Your task to perform on an android device: Open calendar and show me the second week of next month Image 0: 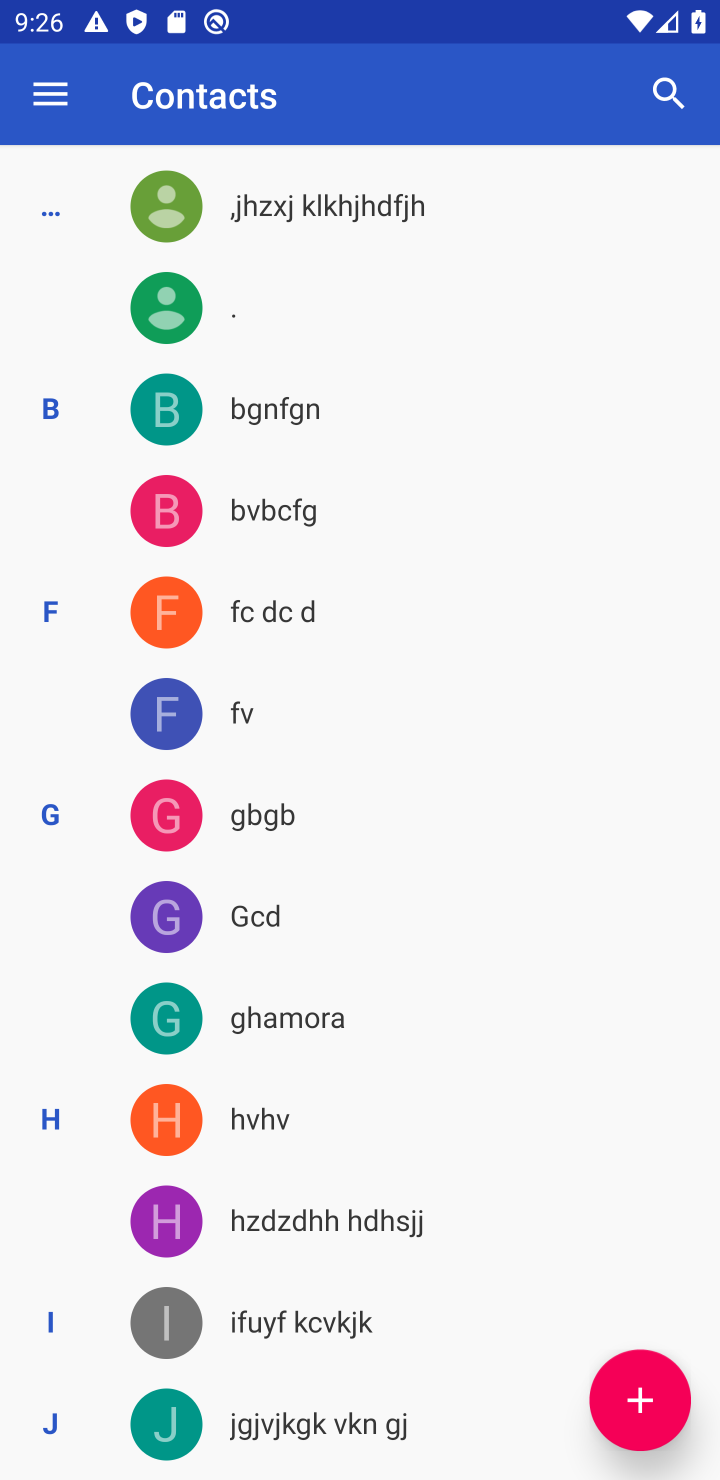
Step 0: press home button
Your task to perform on an android device: Open calendar and show me the second week of next month Image 1: 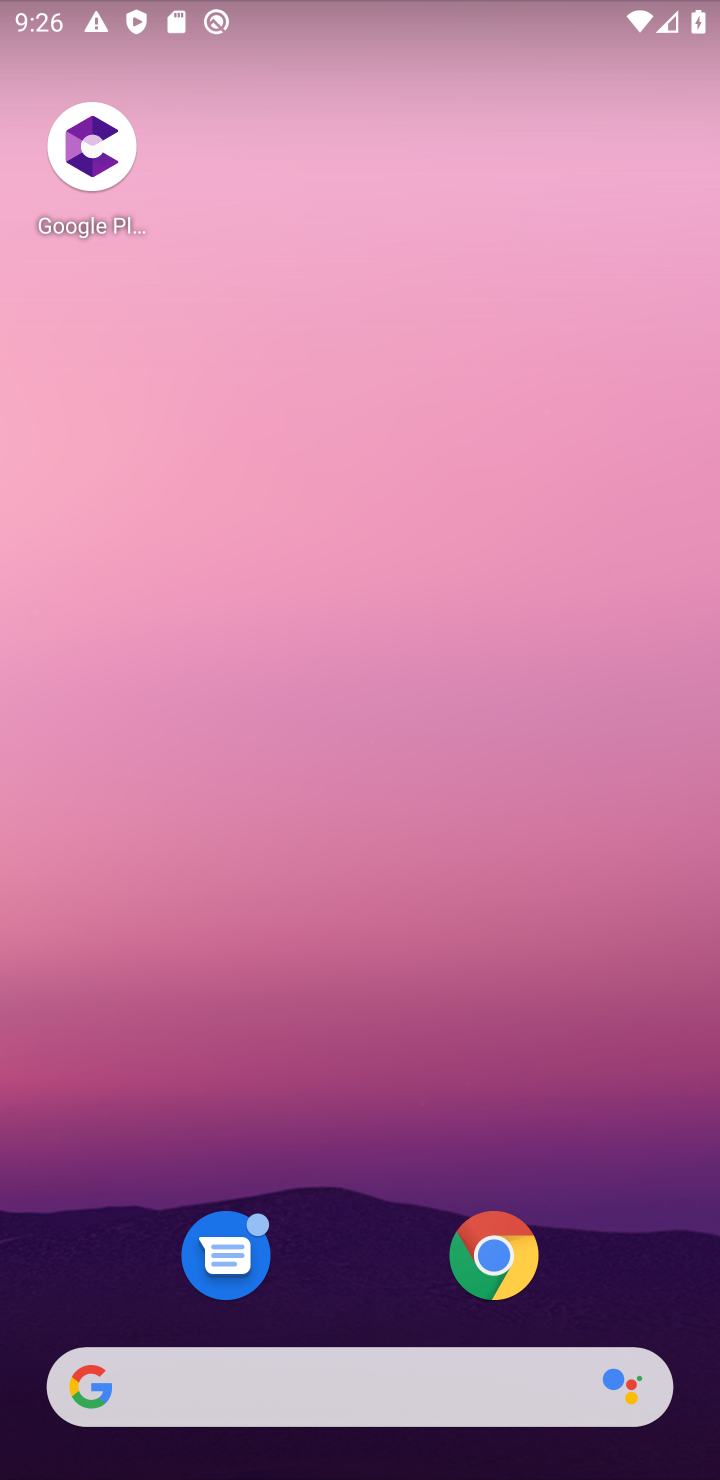
Step 1: drag from (46, 1342) to (263, 561)
Your task to perform on an android device: Open calendar and show me the second week of next month Image 2: 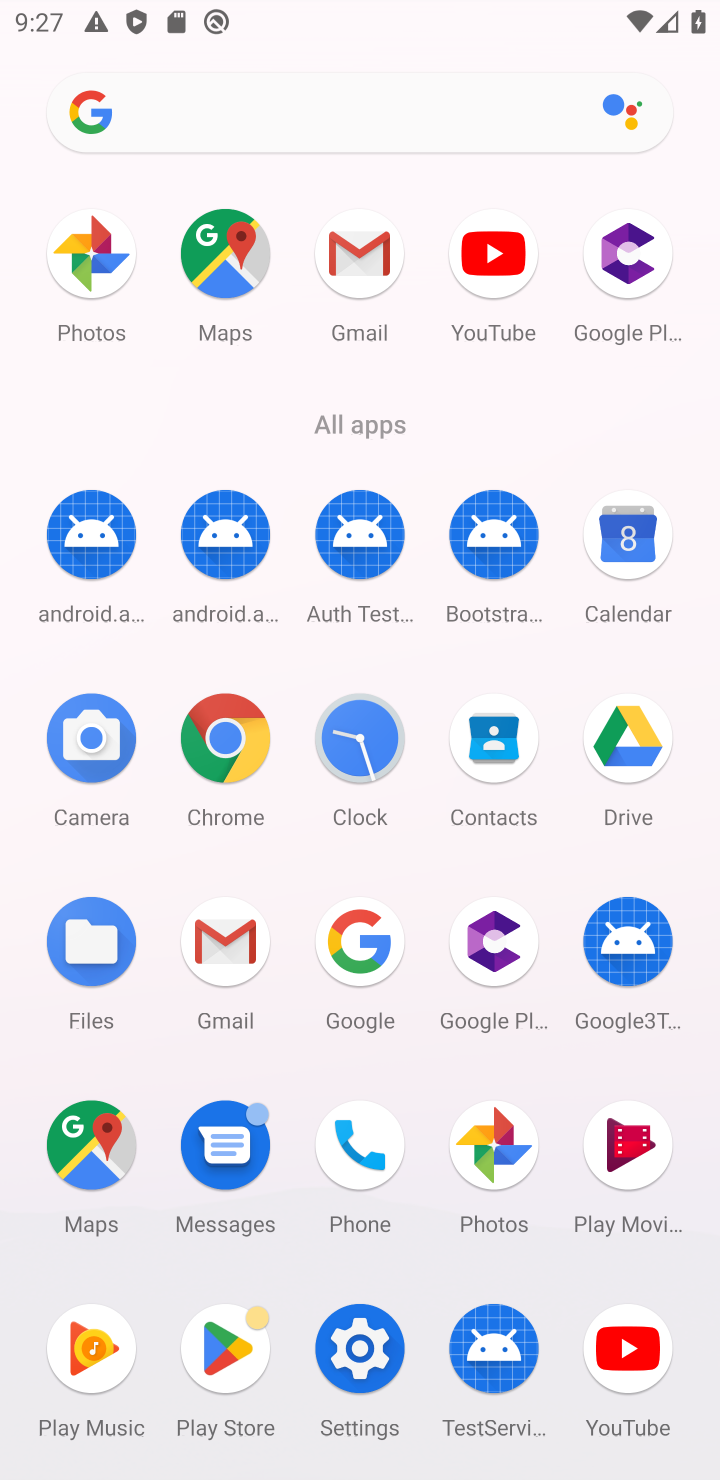
Step 2: click (643, 553)
Your task to perform on an android device: Open calendar and show me the second week of next month Image 3: 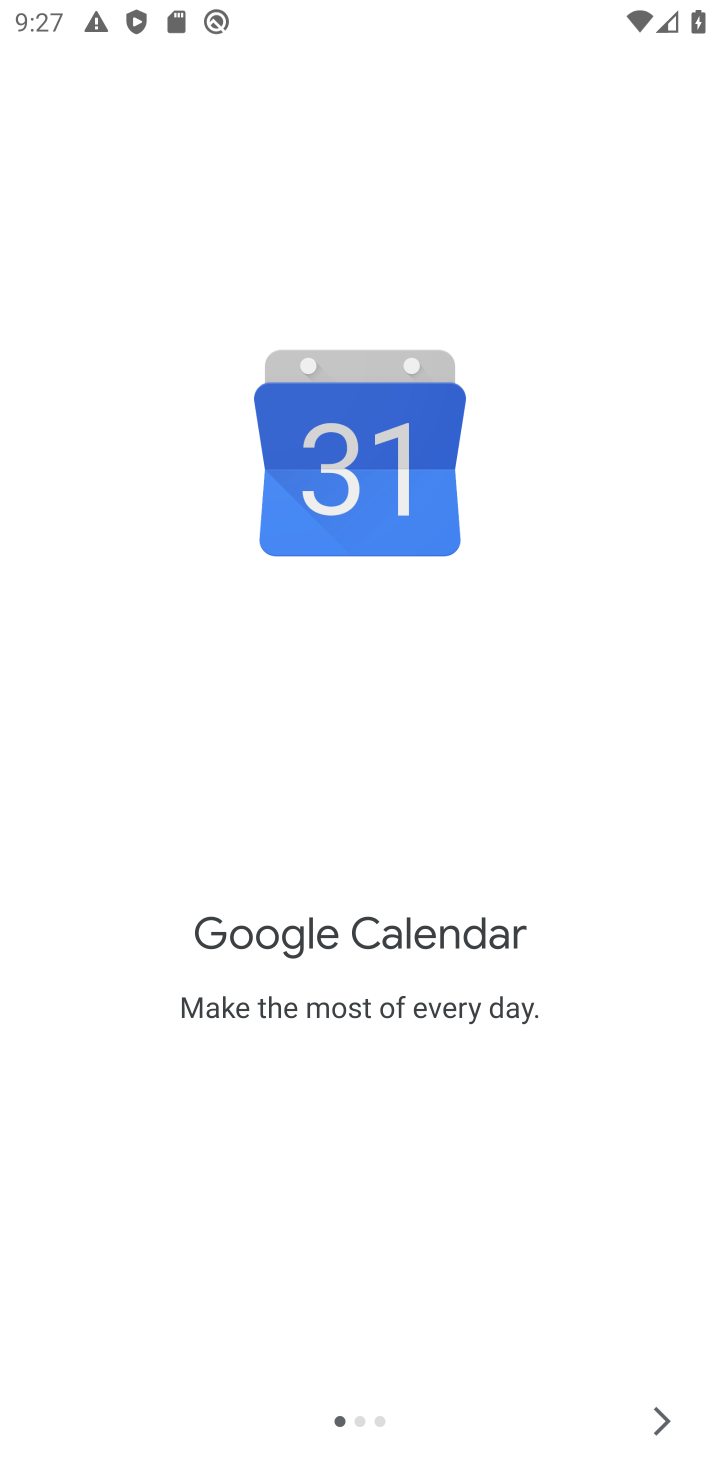
Step 3: click (669, 1402)
Your task to perform on an android device: Open calendar and show me the second week of next month Image 4: 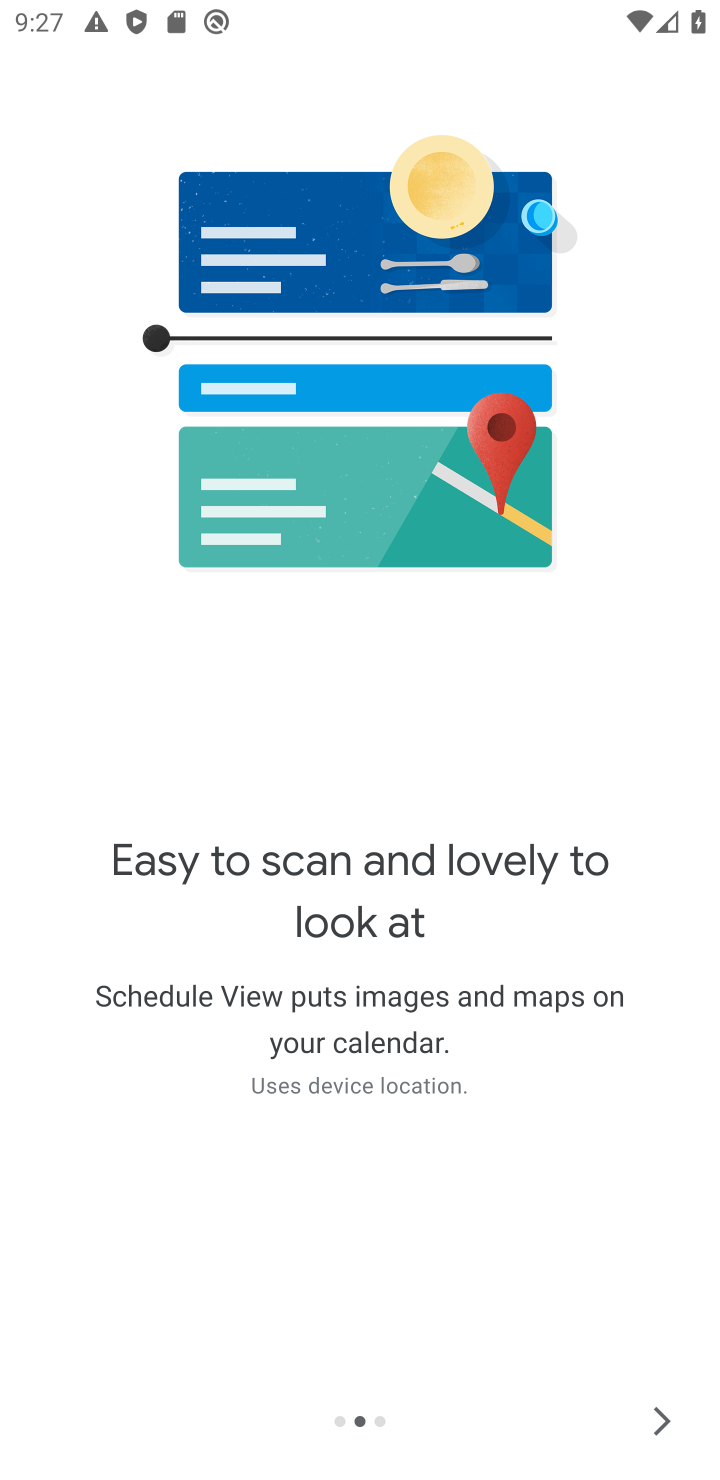
Step 4: click (669, 1402)
Your task to perform on an android device: Open calendar and show me the second week of next month Image 5: 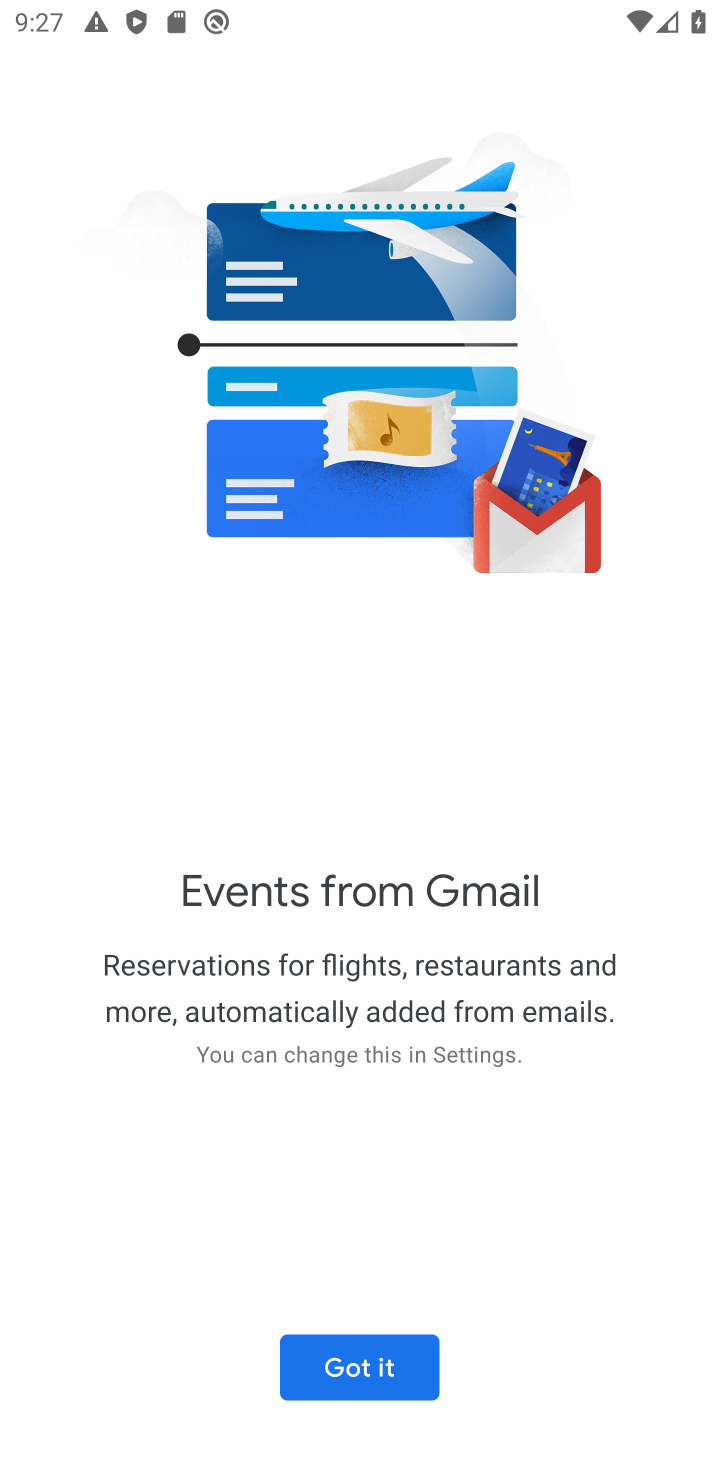
Step 5: click (356, 1366)
Your task to perform on an android device: Open calendar and show me the second week of next month Image 6: 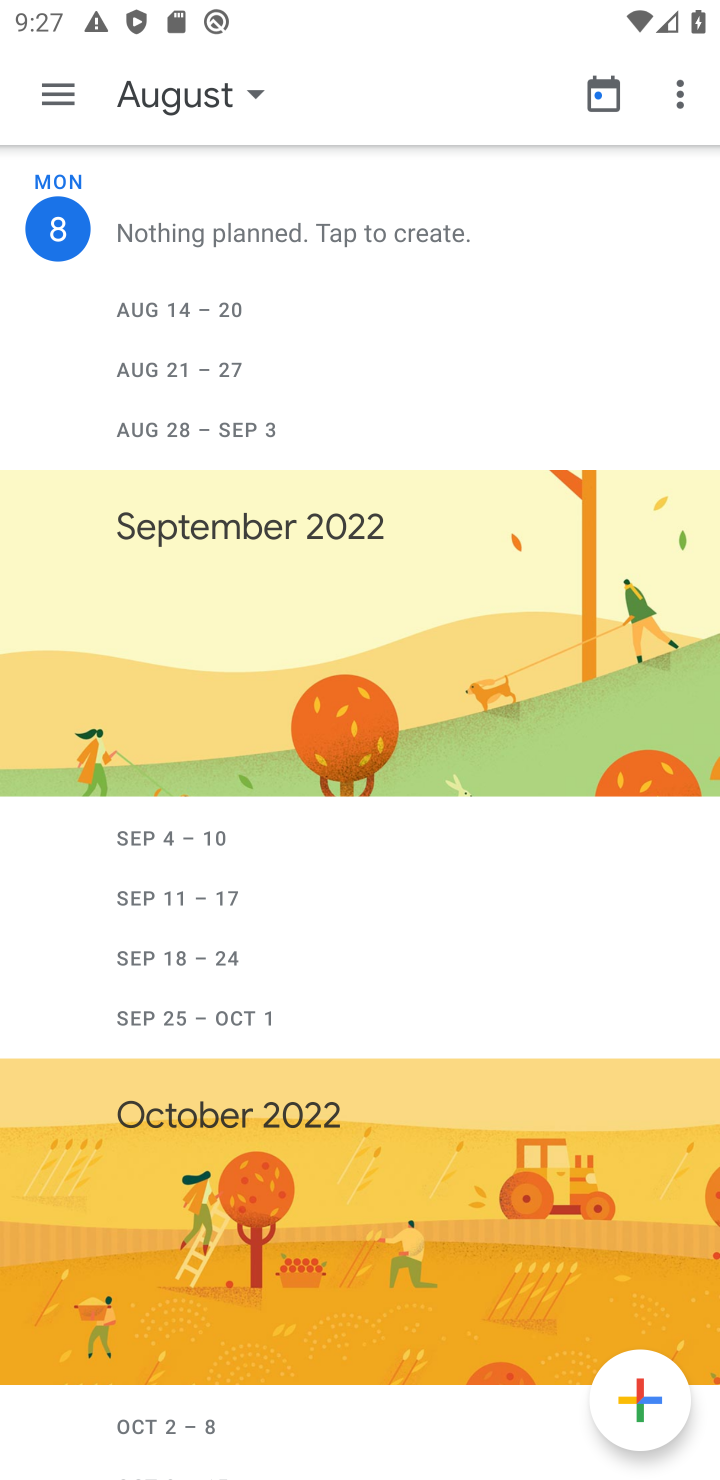
Step 6: click (195, 84)
Your task to perform on an android device: Open calendar and show me the second week of next month Image 7: 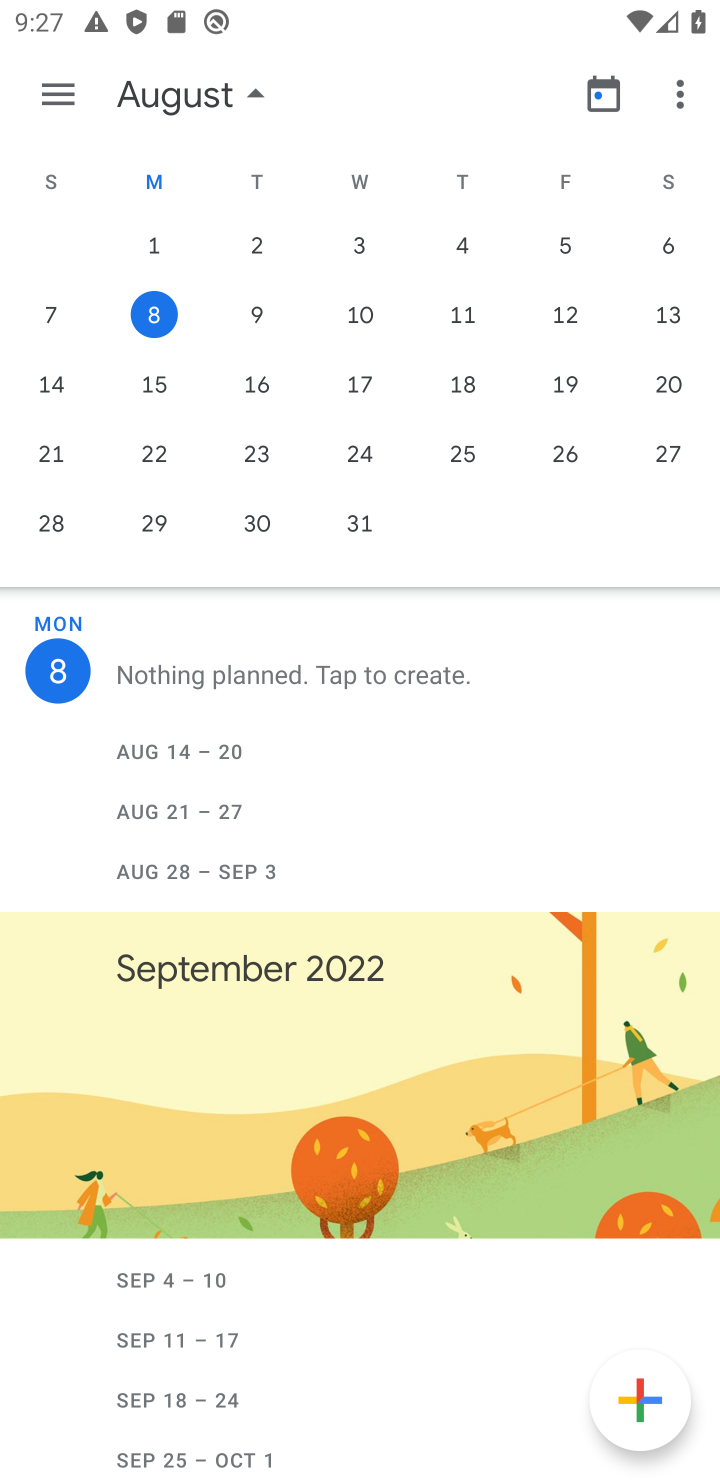
Step 7: drag from (653, 346) to (9, 250)
Your task to perform on an android device: Open calendar and show me the second week of next month Image 8: 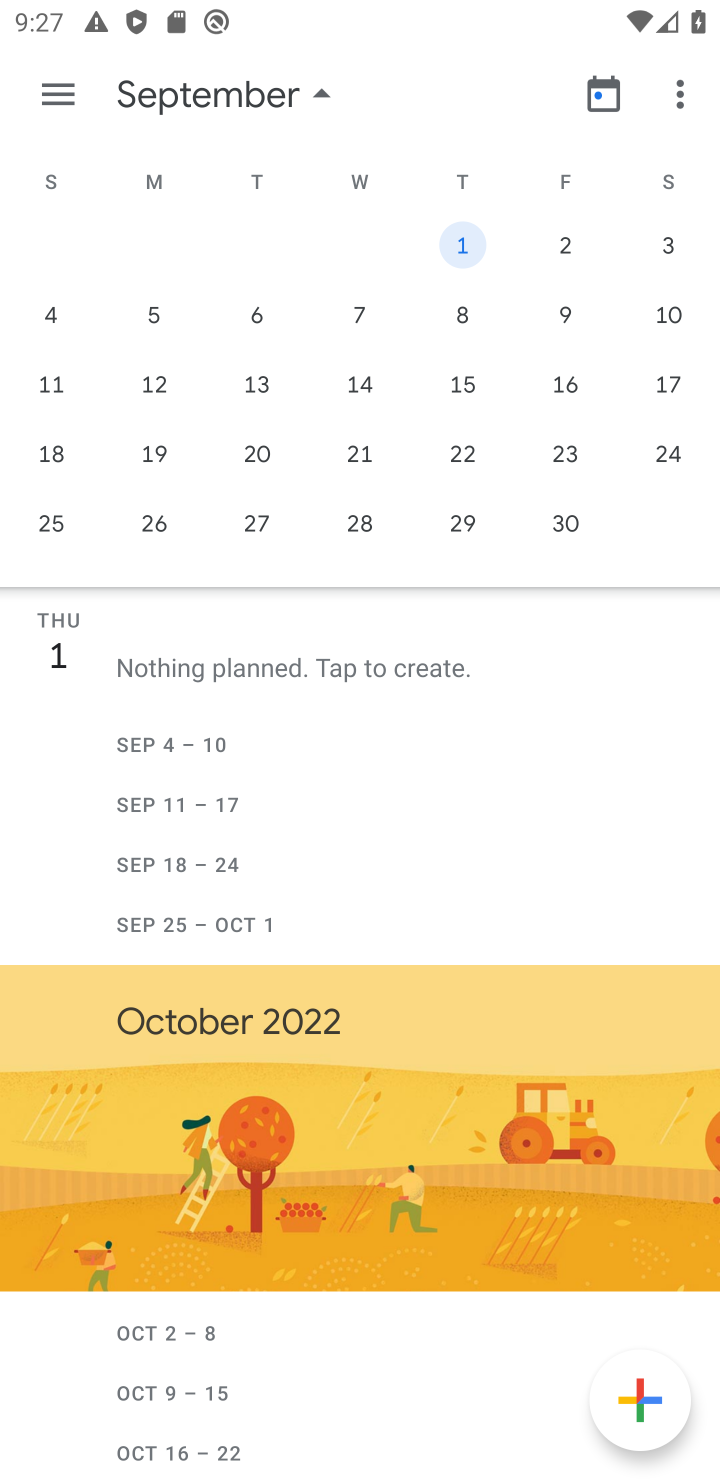
Step 8: click (60, 310)
Your task to perform on an android device: Open calendar and show me the second week of next month Image 9: 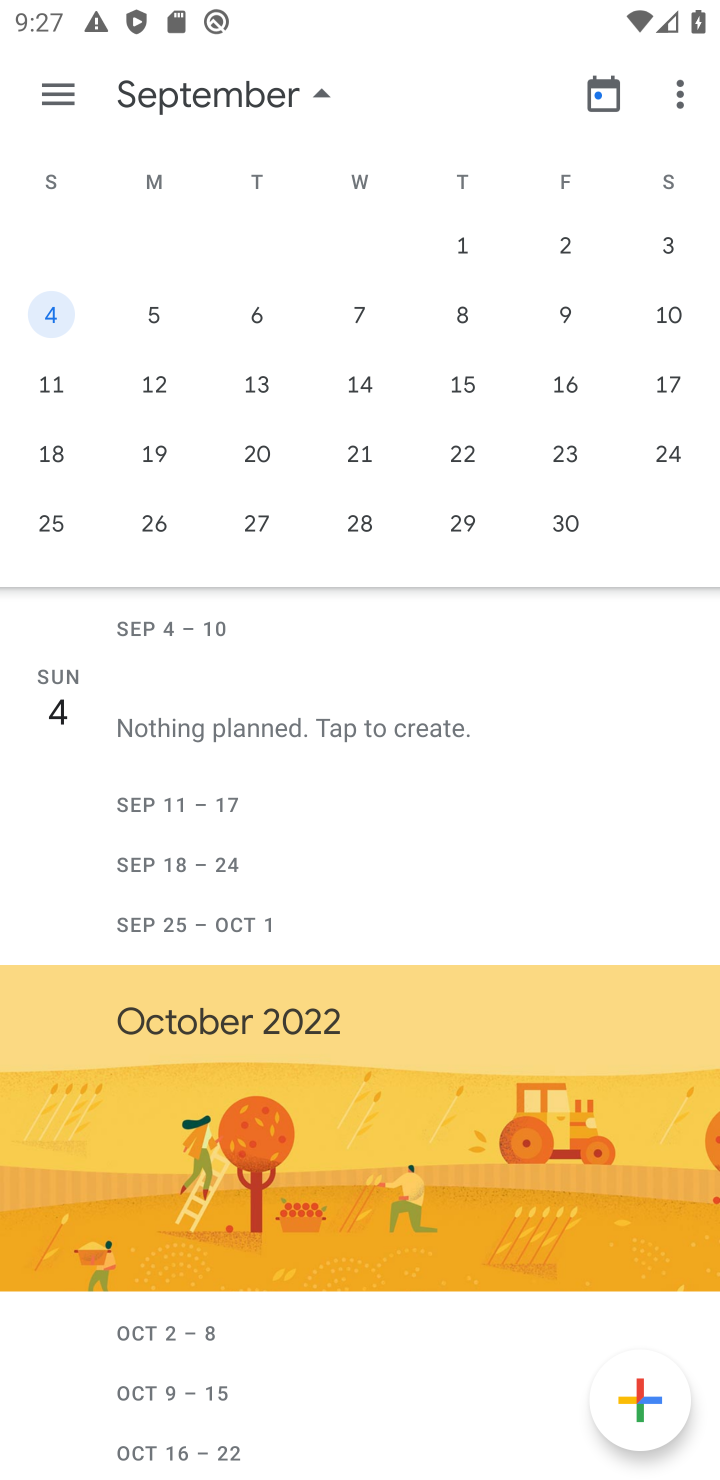
Step 9: task complete